Your task to perform on an android device: Go to Google Image 0: 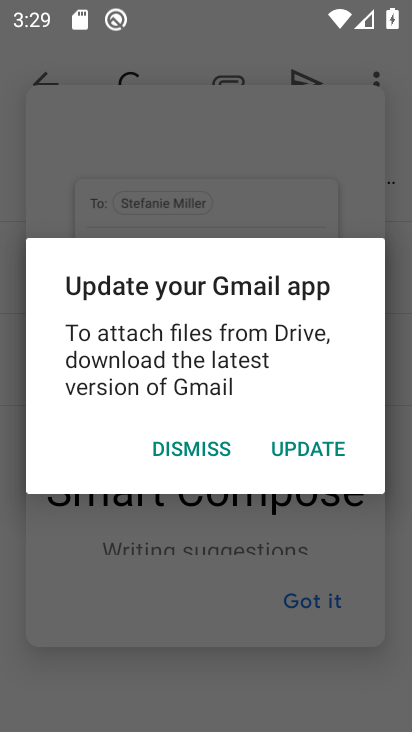
Step 0: press home button
Your task to perform on an android device: Go to Google Image 1: 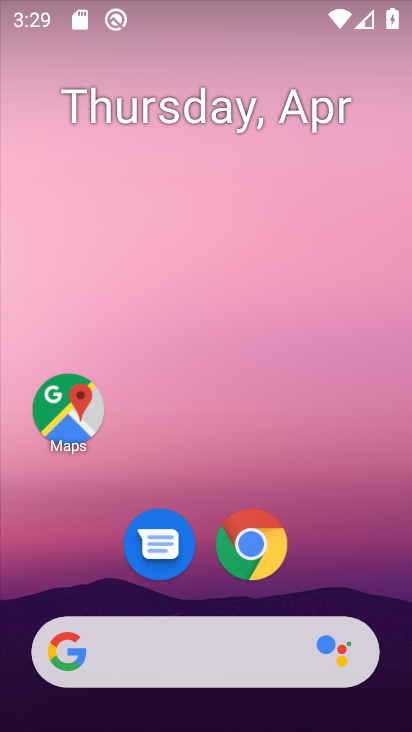
Step 1: drag from (193, 653) to (192, 55)
Your task to perform on an android device: Go to Google Image 2: 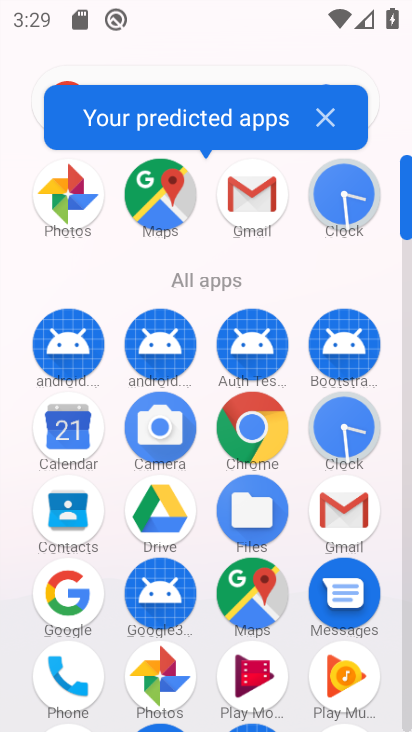
Step 2: click (79, 592)
Your task to perform on an android device: Go to Google Image 3: 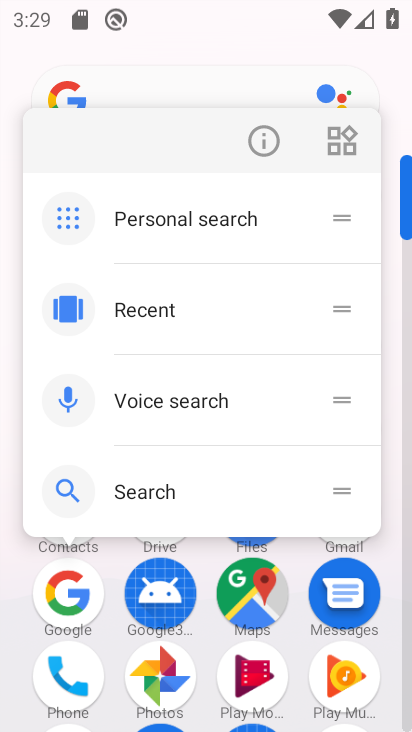
Step 3: click (79, 592)
Your task to perform on an android device: Go to Google Image 4: 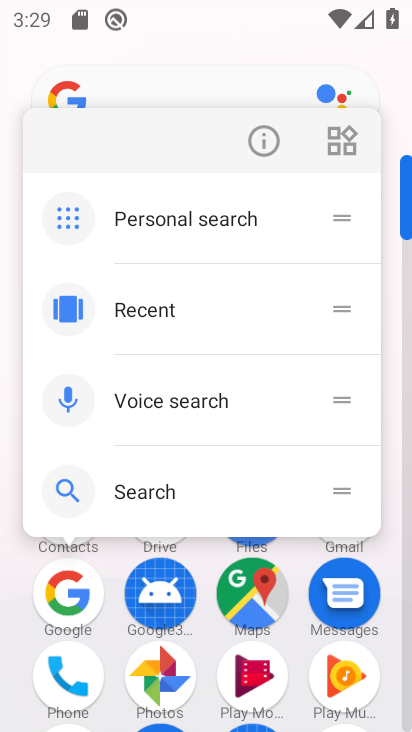
Step 4: click (79, 592)
Your task to perform on an android device: Go to Google Image 5: 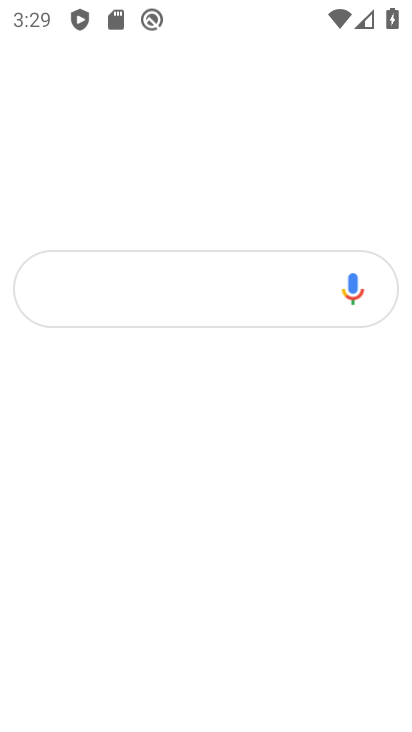
Step 5: click (62, 596)
Your task to perform on an android device: Go to Google Image 6: 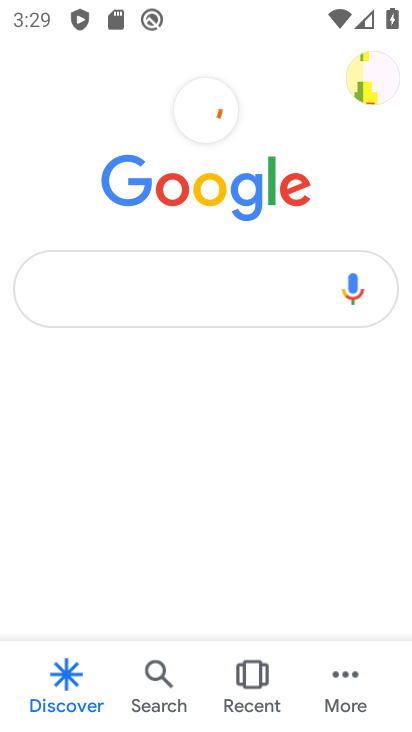
Step 6: task complete